Your task to perform on an android device: set the stopwatch Image 0: 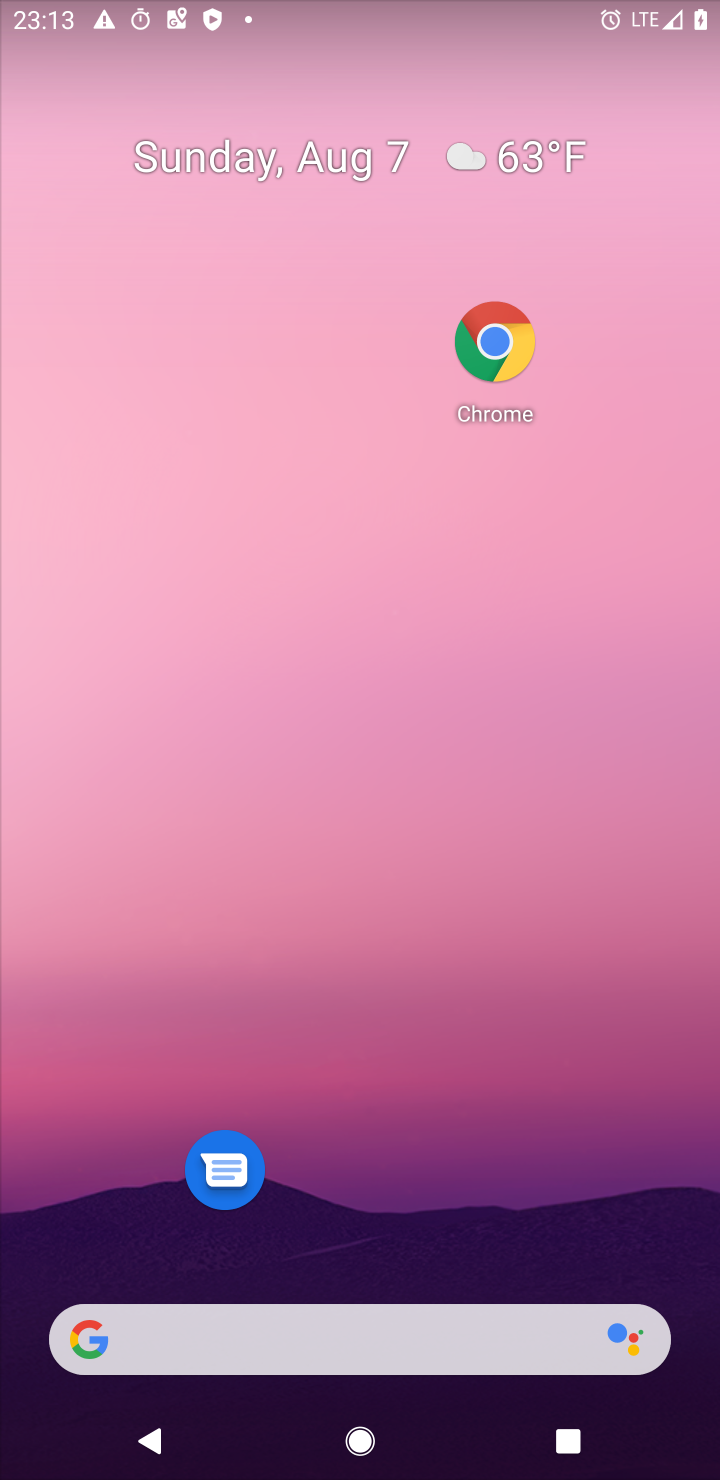
Step 0: drag from (431, 1334) to (364, 8)
Your task to perform on an android device: set the stopwatch Image 1: 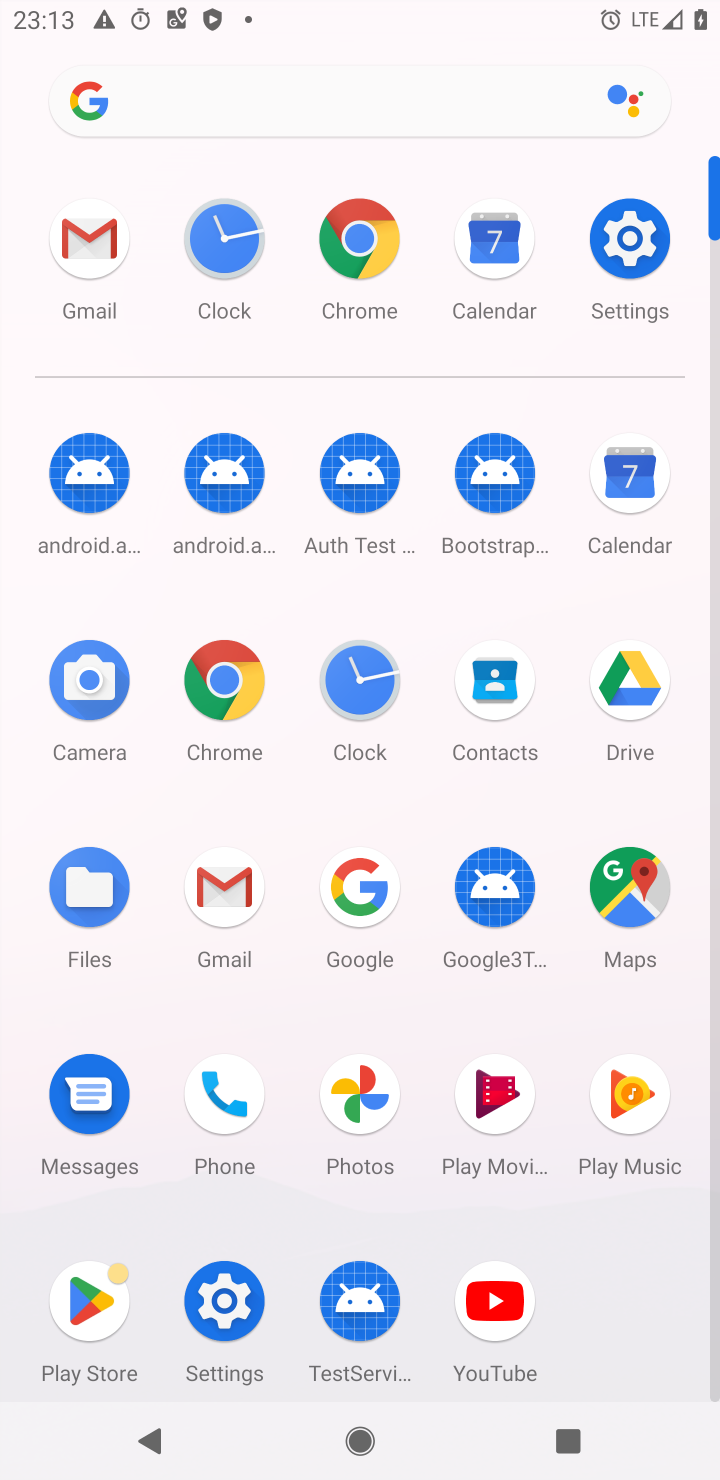
Step 1: click (380, 688)
Your task to perform on an android device: set the stopwatch Image 2: 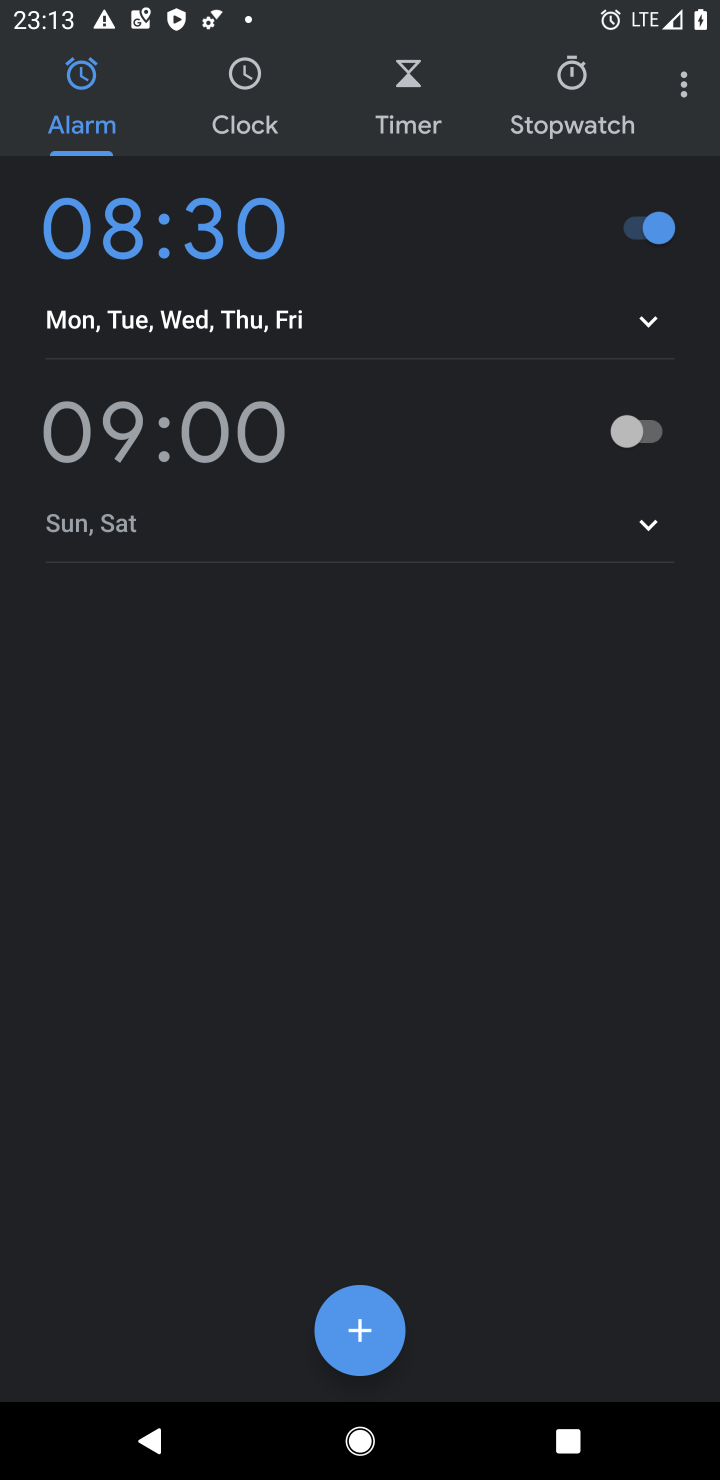
Step 2: click (568, 88)
Your task to perform on an android device: set the stopwatch Image 3: 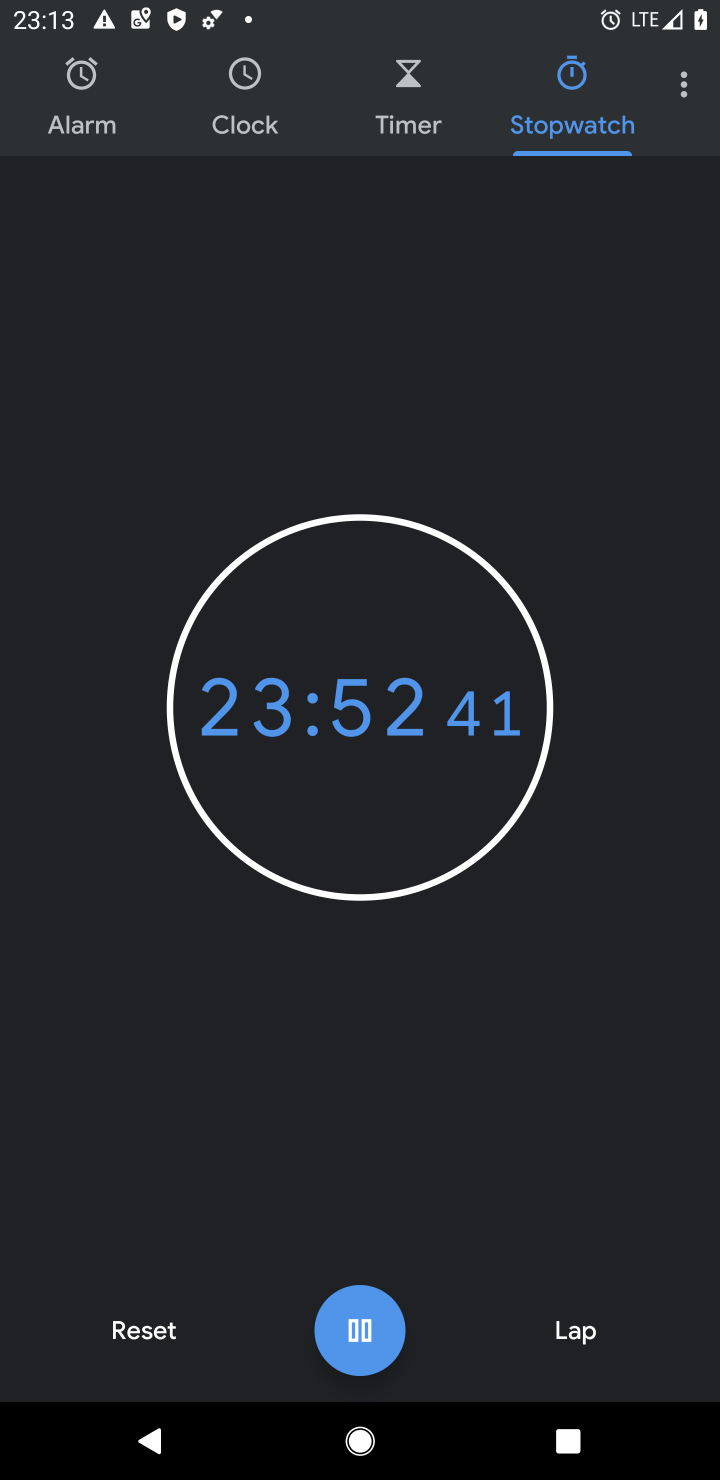
Step 3: task complete